Your task to perform on an android device: Go to Android settings Image 0: 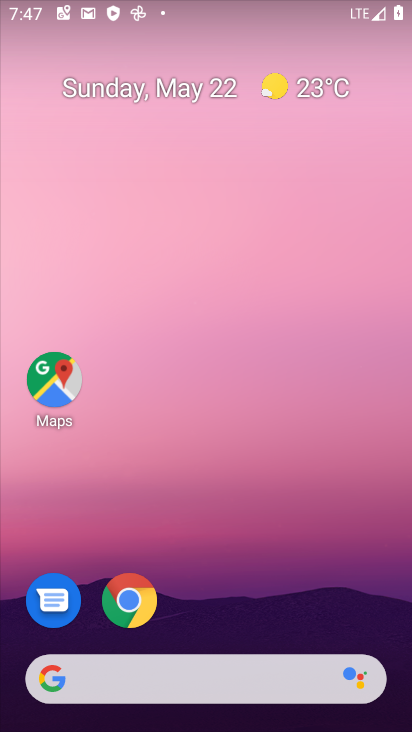
Step 0: drag from (316, 593) to (325, 8)
Your task to perform on an android device: Go to Android settings Image 1: 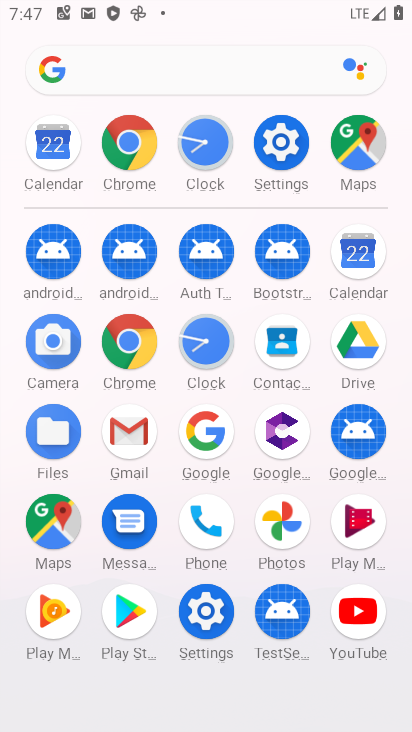
Step 1: click (265, 134)
Your task to perform on an android device: Go to Android settings Image 2: 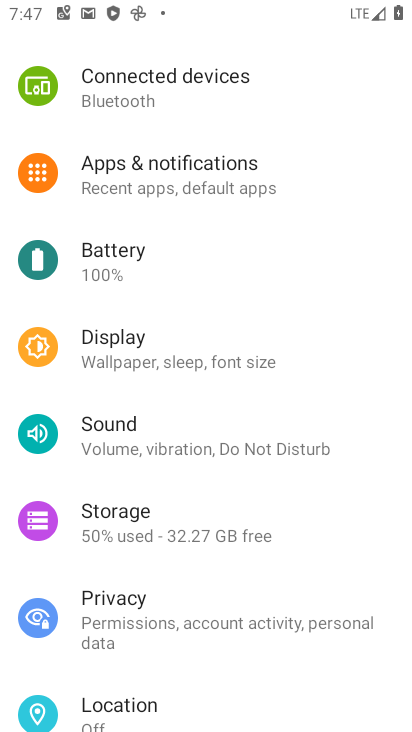
Step 2: drag from (180, 656) to (186, 107)
Your task to perform on an android device: Go to Android settings Image 3: 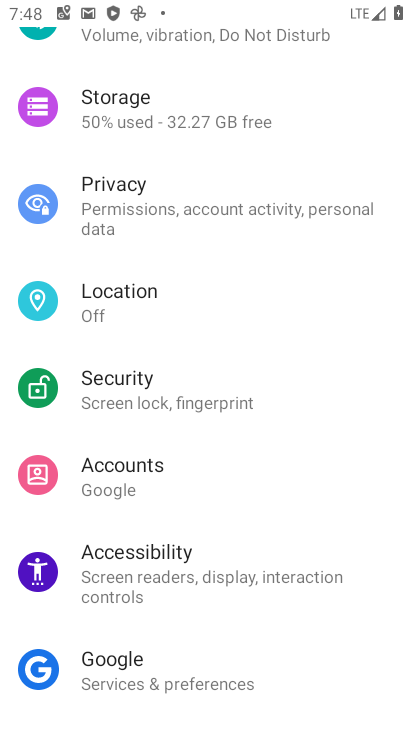
Step 3: drag from (132, 642) to (242, 187)
Your task to perform on an android device: Go to Android settings Image 4: 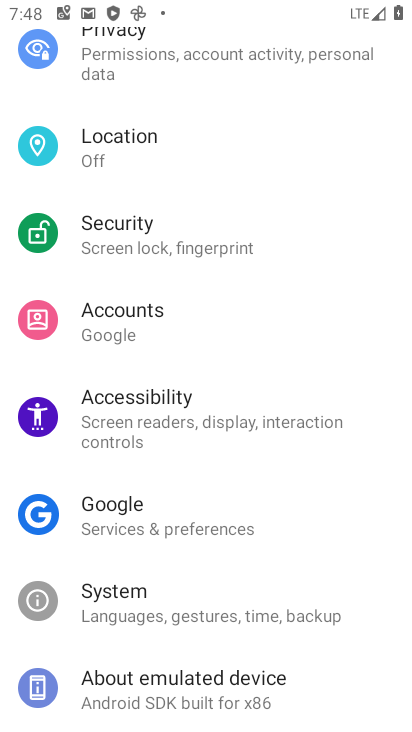
Step 4: click (161, 687)
Your task to perform on an android device: Go to Android settings Image 5: 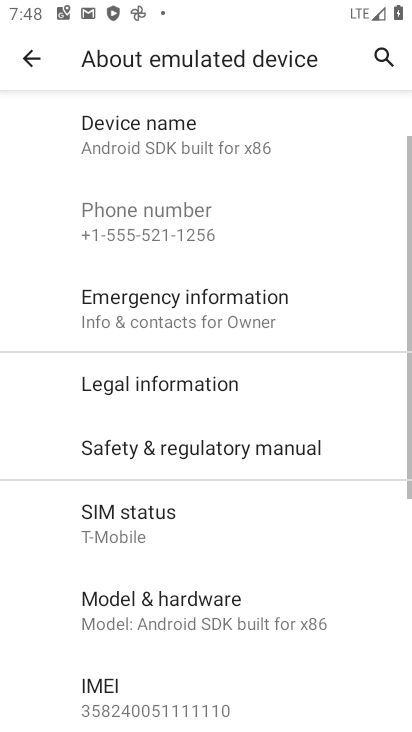
Step 5: drag from (188, 655) to (216, 272)
Your task to perform on an android device: Go to Android settings Image 6: 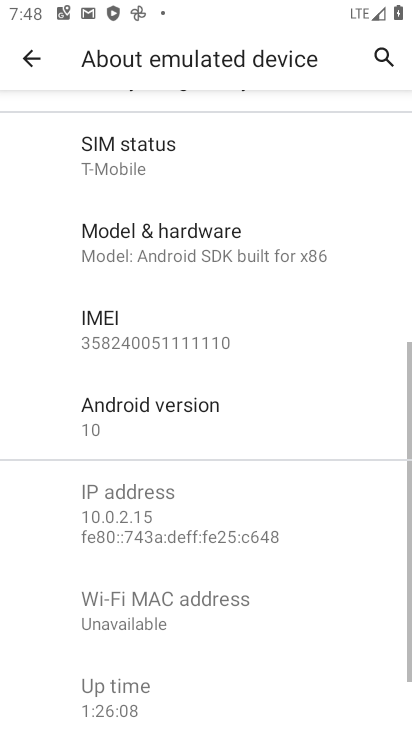
Step 6: click (190, 424)
Your task to perform on an android device: Go to Android settings Image 7: 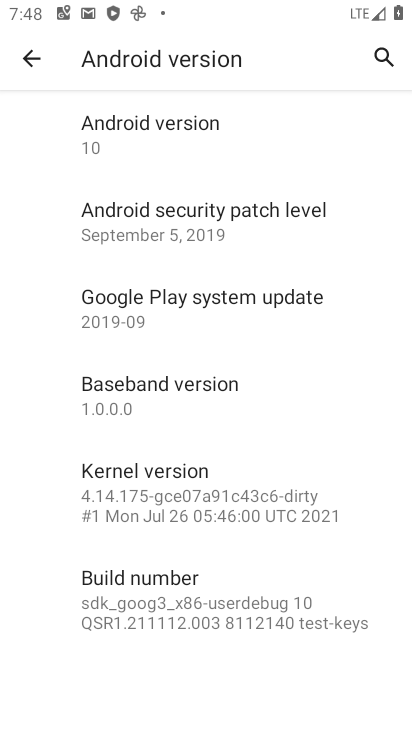
Step 7: task complete